Your task to perform on an android device: toggle javascript in the chrome app Image 0: 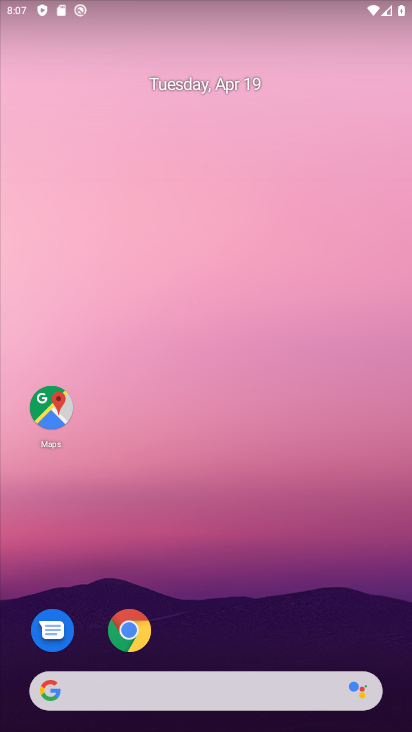
Step 0: drag from (230, 537) to (230, 281)
Your task to perform on an android device: toggle javascript in the chrome app Image 1: 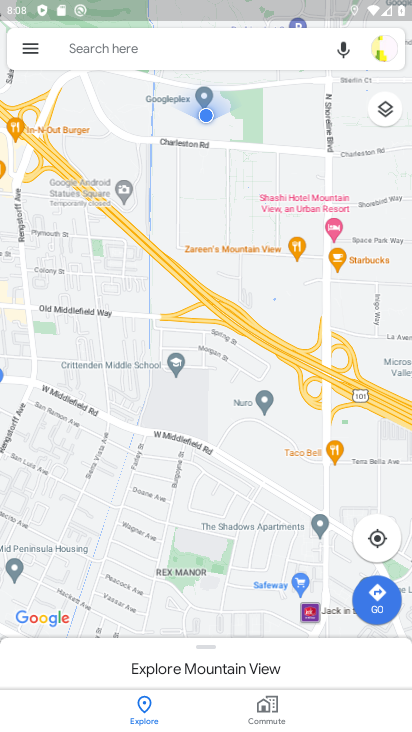
Step 1: press home button
Your task to perform on an android device: toggle javascript in the chrome app Image 2: 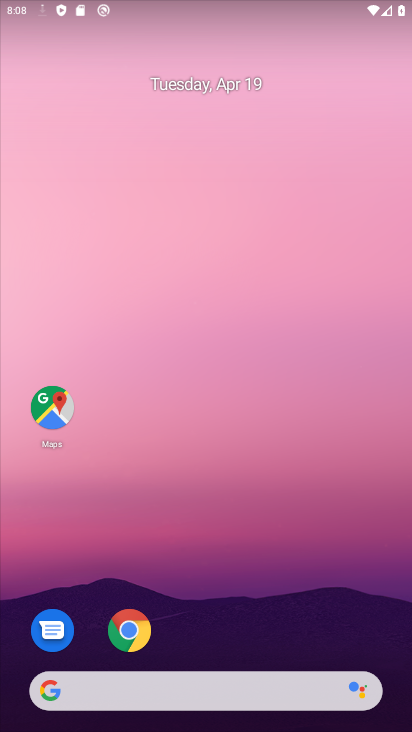
Step 2: click (130, 639)
Your task to perform on an android device: toggle javascript in the chrome app Image 3: 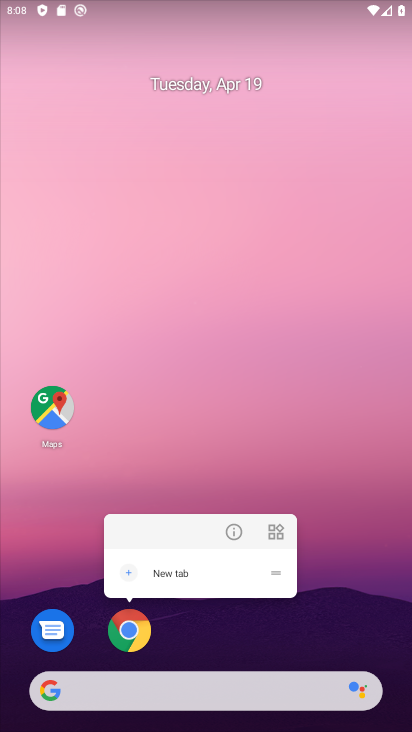
Step 3: click (139, 632)
Your task to perform on an android device: toggle javascript in the chrome app Image 4: 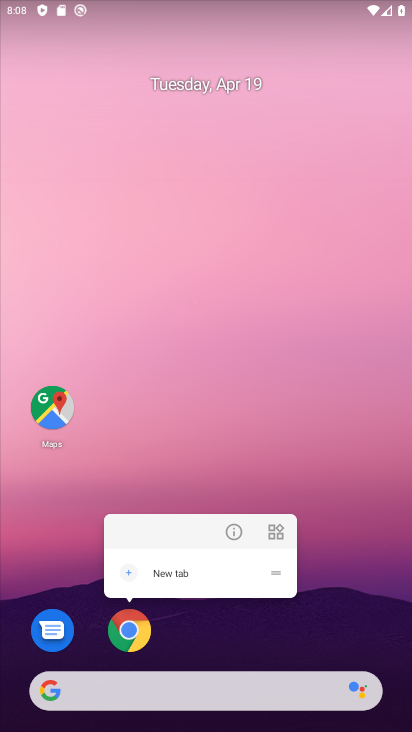
Step 4: click (117, 635)
Your task to perform on an android device: toggle javascript in the chrome app Image 5: 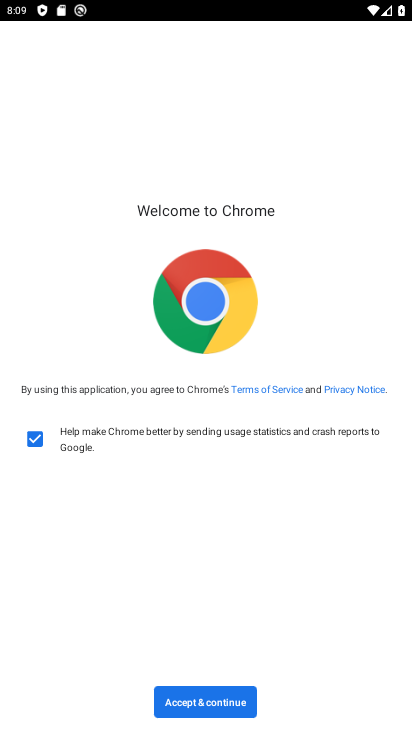
Step 5: click (209, 709)
Your task to perform on an android device: toggle javascript in the chrome app Image 6: 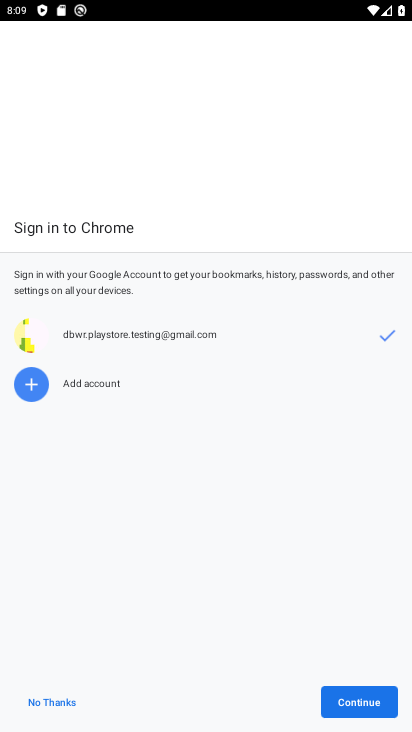
Step 6: click (351, 707)
Your task to perform on an android device: toggle javascript in the chrome app Image 7: 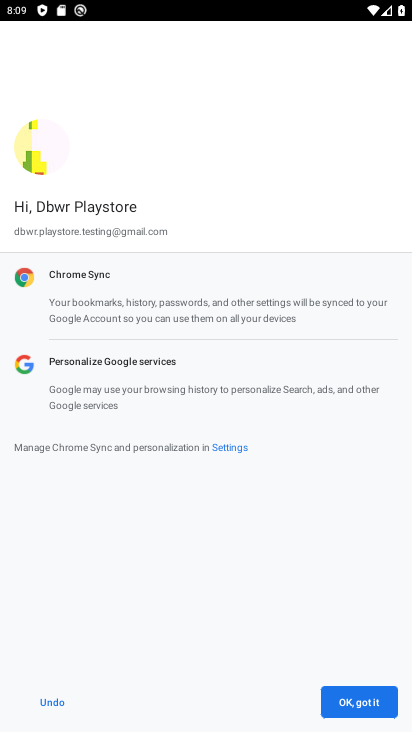
Step 7: click (357, 700)
Your task to perform on an android device: toggle javascript in the chrome app Image 8: 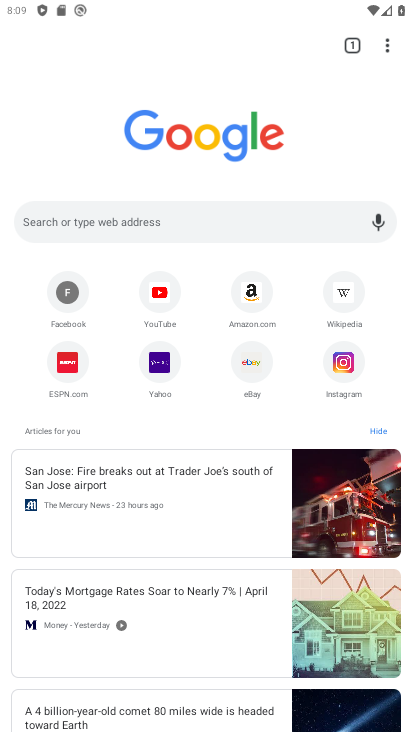
Step 8: click (390, 50)
Your task to perform on an android device: toggle javascript in the chrome app Image 9: 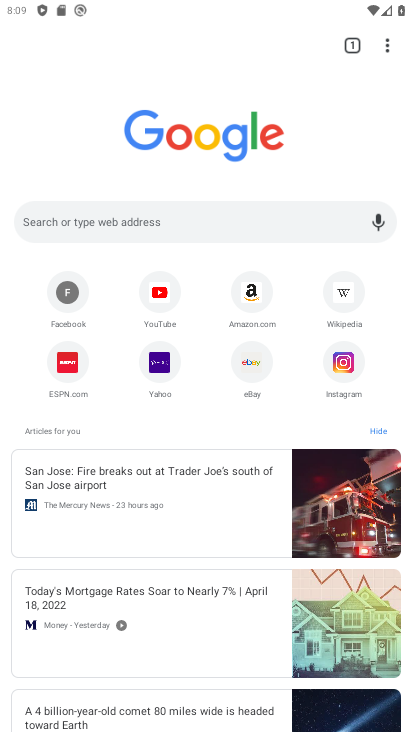
Step 9: click (390, 50)
Your task to perform on an android device: toggle javascript in the chrome app Image 10: 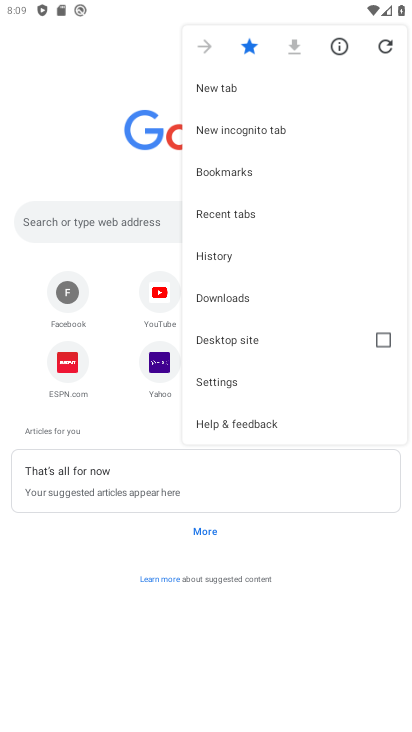
Step 10: click (250, 374)
Your task to perform on an android device: toggle javascript in the chrome app Image 11: 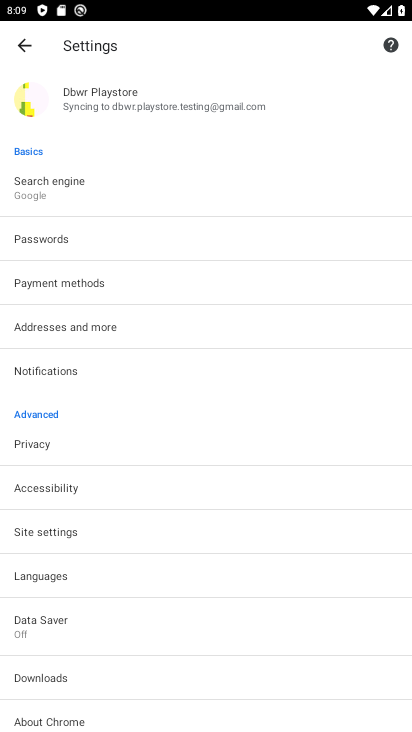
Step 11: drag from (131, 601) to (170, 330)
Your task to perform on an android device: toggle javascript in the chrome app Image 12: 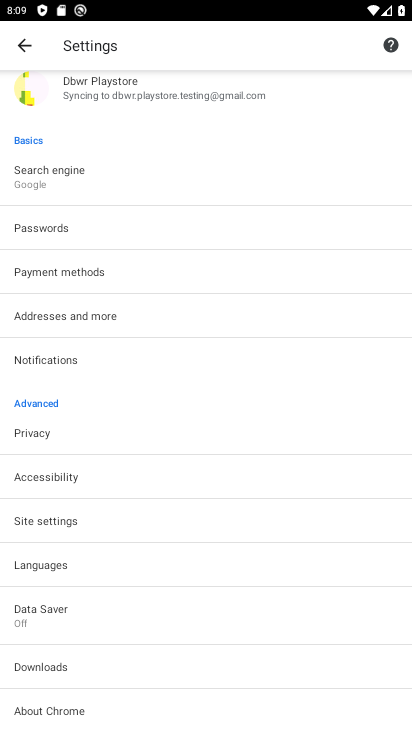
Step 12: click (73, 525)
Your task to perform on an android device: toggle javascript in the chrome app Image 13: 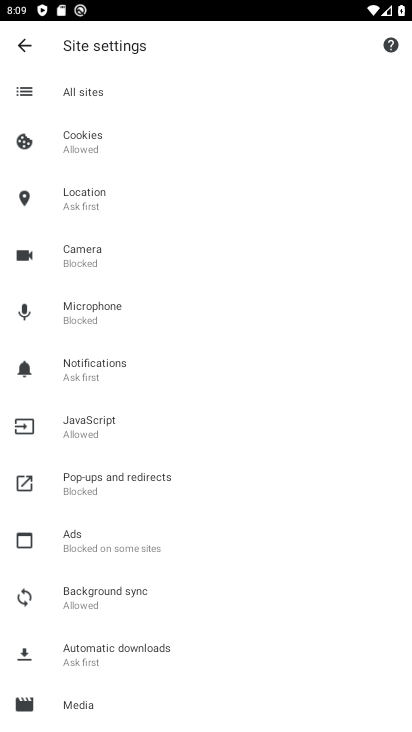
Step 13: click (122, 444)
Your task to perform on an android device: toggle javascript in the chrome app Image 14: 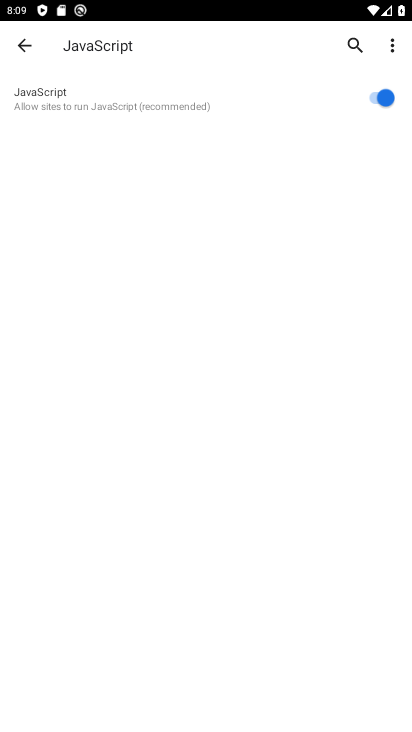
Step 14: click (374, 104)
Your task to perform on an android device: toggle javascript in the chrome app Image 15: 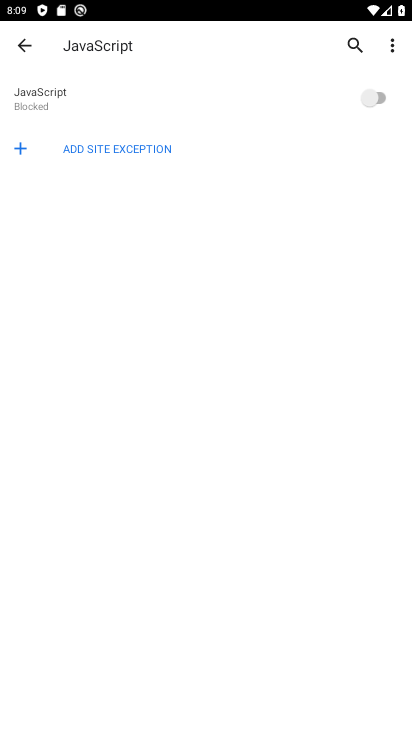
Step 15: task complete